Your task to perform on an android device: turn notification dots on Image 0: 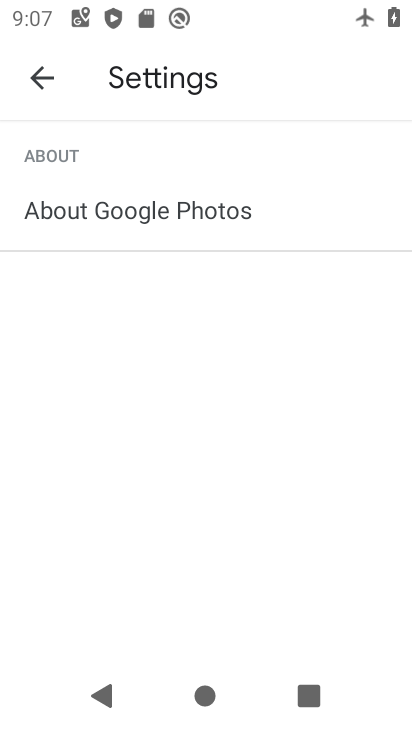
Step 0: press home button
Your task to perform on an android device: turn notification dots on Image 1: 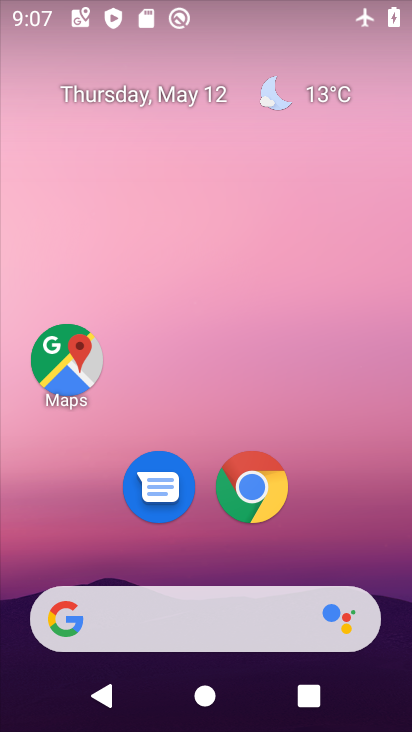
Step 1: drag from (353, 543) to (293, 14)
Your task to perform on an android device: turn notification dots on Image 2: 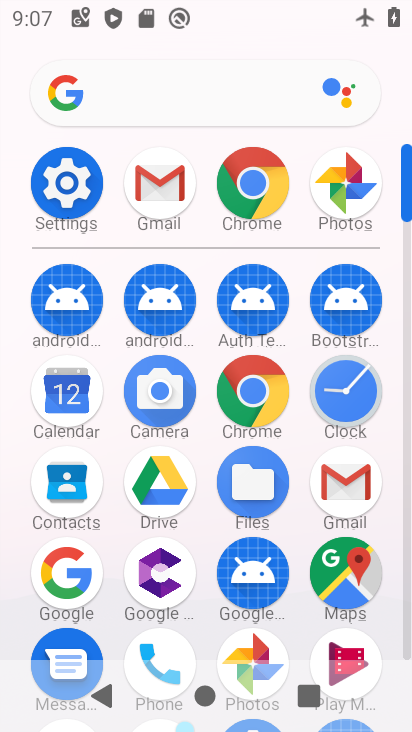
Step 2: click (73, 183)
Your task to perform on an android device: turn notification dots on Image 3: 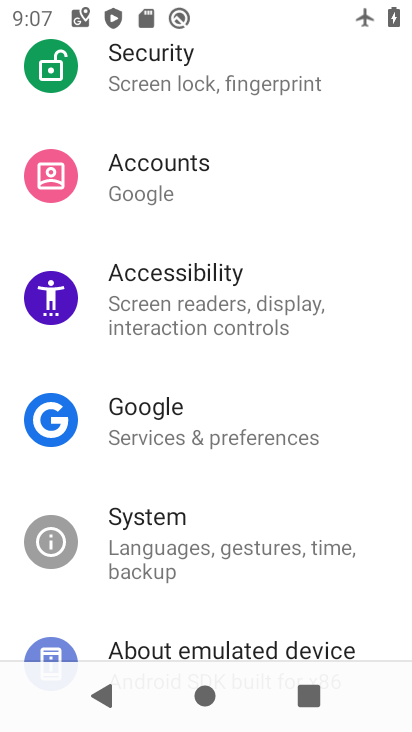
Step 3: drag from (305, 331) to (324, 639)
Your task to perform on an android device: turn notification dots on Image 4: 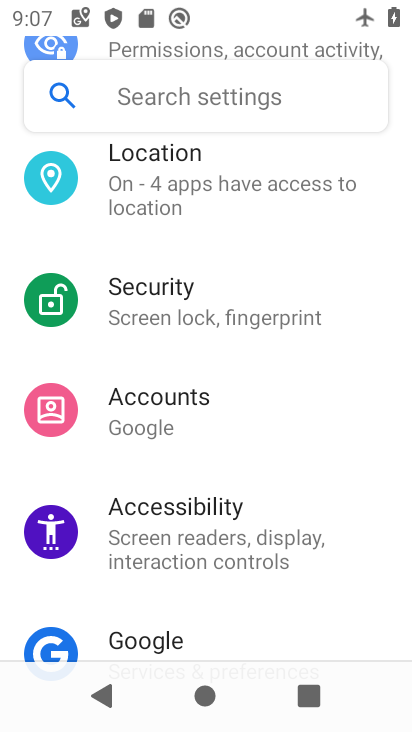
Step 4: drag from (301, 285) to (303, 614)
Your task to perform on an android device: turn notification dots on Image 5: 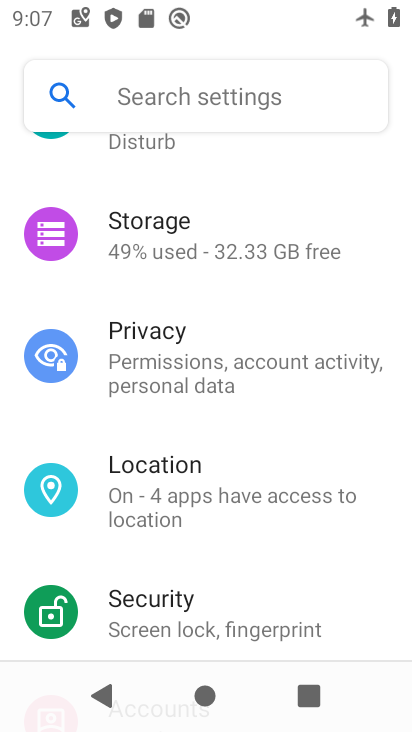
Step 5: drag from (285, 279) to (284, 578)
Your task to perform on an android device: turn notification dots on Image 6: 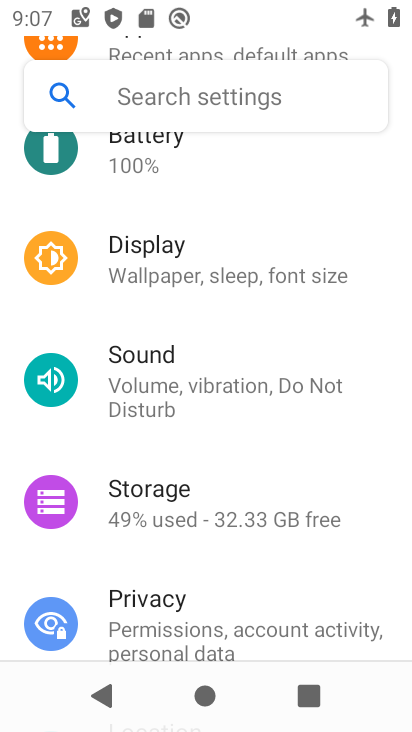
Step 6: drag from (298, 273) to (324, 562)
Your task to perform on an android device: turn notification dots on Image 7: 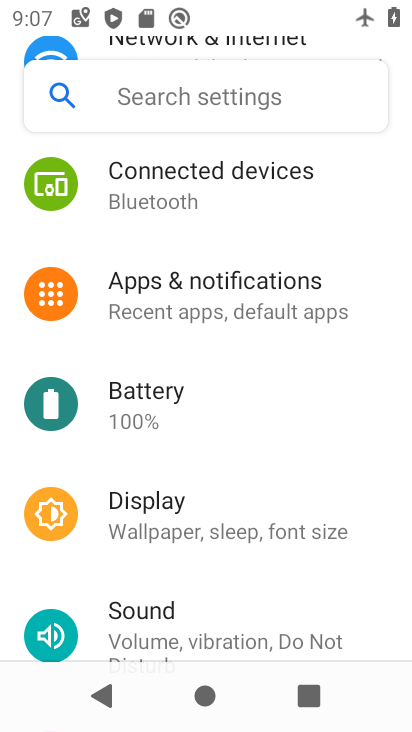
Step 7: click (246, 319)
Your task to perform on an android device: turn notification dots on Image 8: 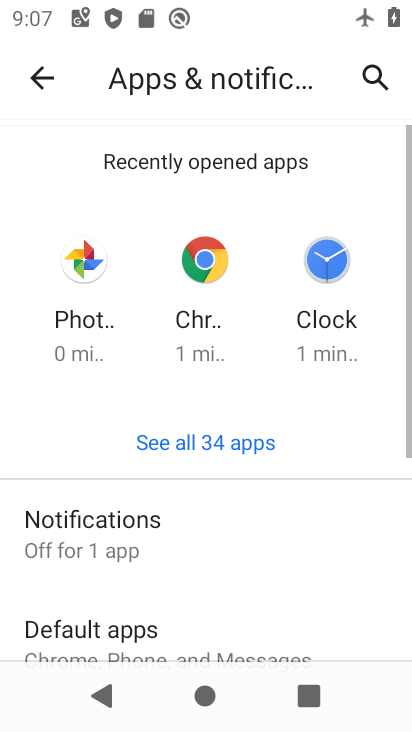
Step 8: drag from (200, 538) to (186, 195)
Your task to perform on an android device: turn notification dots on Image 9: 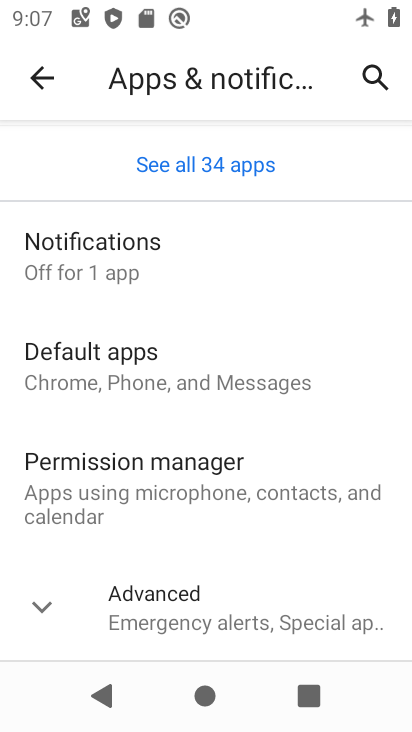
Step 9: click (91, 280)
Your task to perform on an android device: turn notification dots on Image 10: 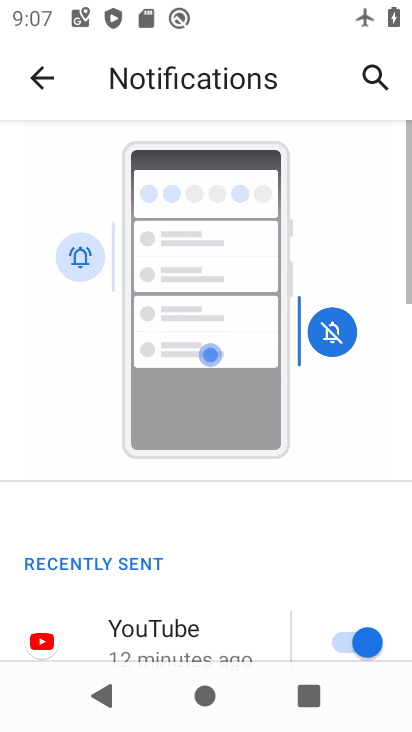
Step 10: drag from (237, 561) to (189, 49)
Your task to perform on an android device: turn notification dots on Image 11: 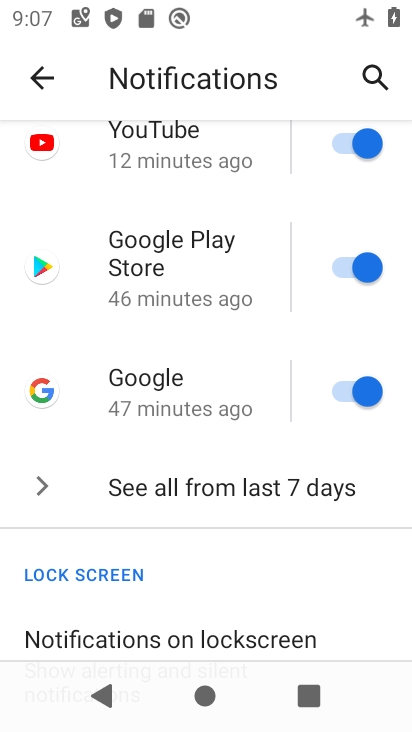
Step 11: drag from (165, 438) to (141, 9)
Your task to perform on an android device: turn notification dots on Image 12: 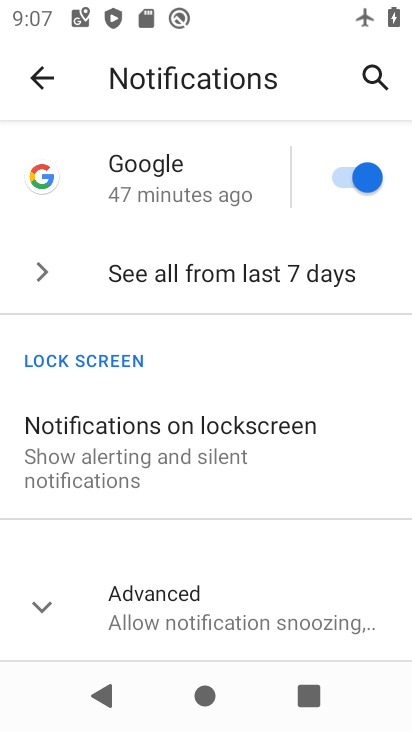
Step 12: click (39, 616)
Your task to perform on an android device: turn notification dots on Image 13: 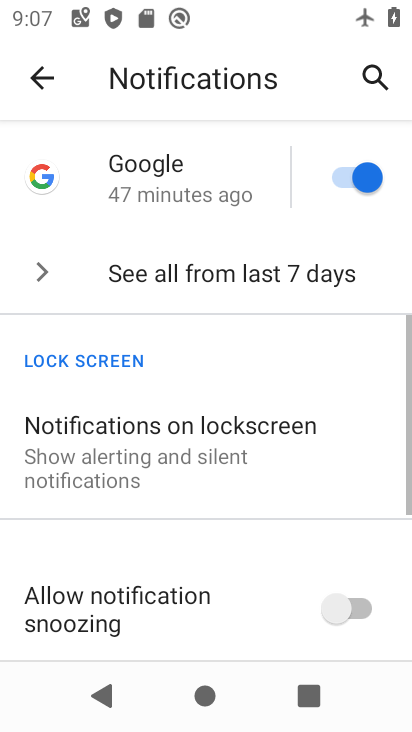
Step 13: task complete